Your task to perform on an android device: Is it going to rain this weekend? Image 0: 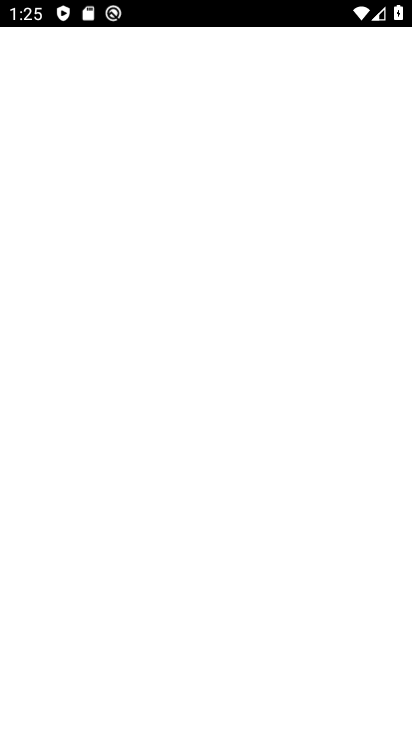
Step 0: drag from (34, 288) to (257, 228)
Your task to perform on an android device: Is it going to rain this weekend? Image 1: 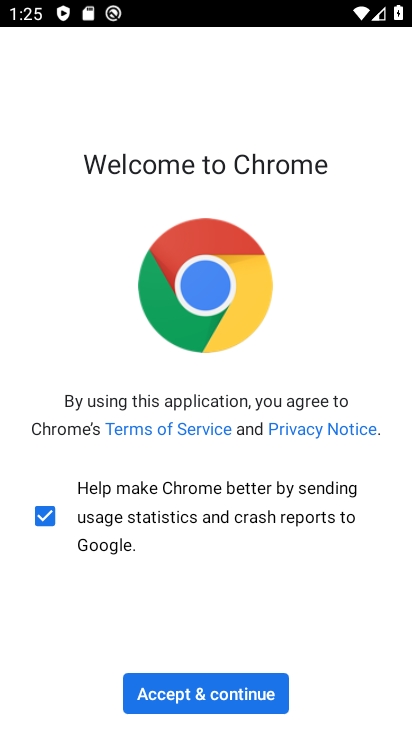
Step 1: press back button
Your task to perform on an android device: Is it going to rain this weekend? Image 2: 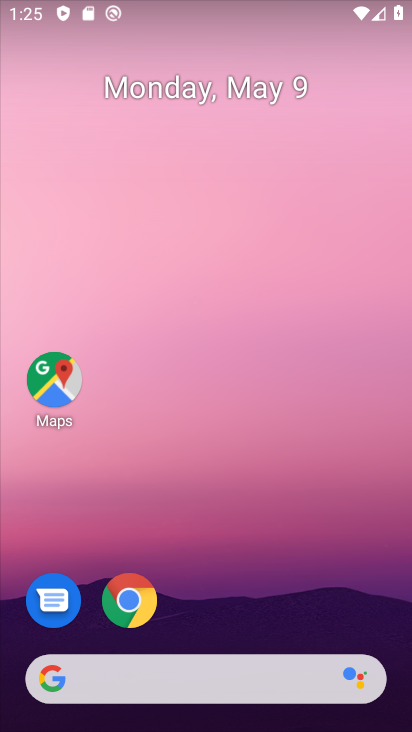
Step 2: click (36, 266)
Your task to perform on an android device: Is it going to rain this weekend? Image 3: 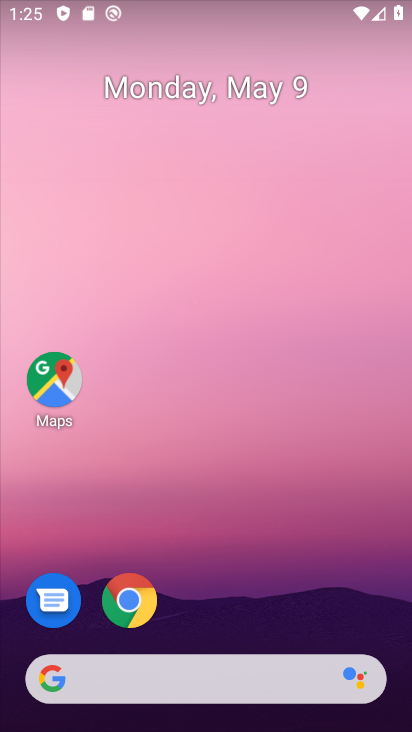
Step 3: drag from (262, 670) to (257, 160)
Your task to perform on an android device: Is it going to rain this weekend? Image 4: 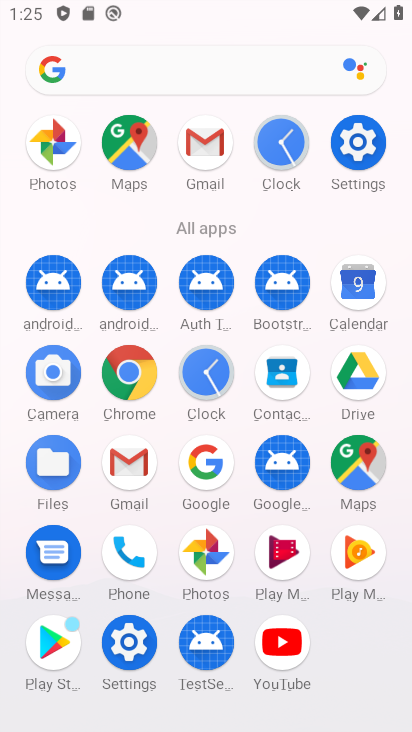
Step 4: click (197, 454)
Your task to perform on an android device: Is it going to rain this weekend? Image 5: 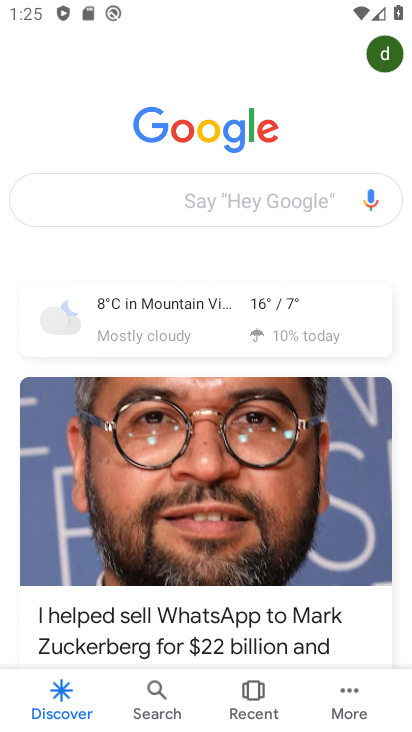
Step 5: click (68, 315)
Your task to perform on an android device: Is it going to rain this weekend? Image 6: 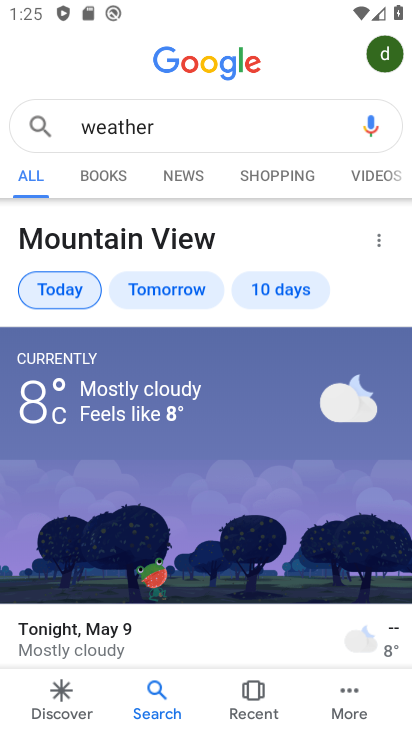
Step 6: drag from (342, 374) to (8, 350)
Your task to perform on an android device: Is it going to rain this weekend? Image 7: 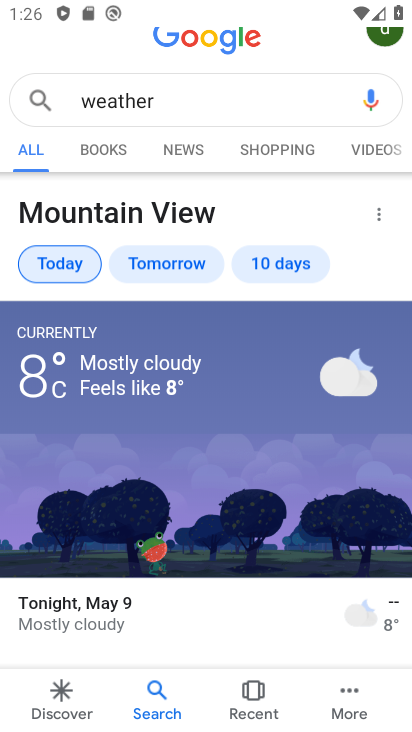
Step 7: drag from (235, 456) to (7, 372)
Your task to perform on an android device: Is it going to rain this weekend? Image 8: 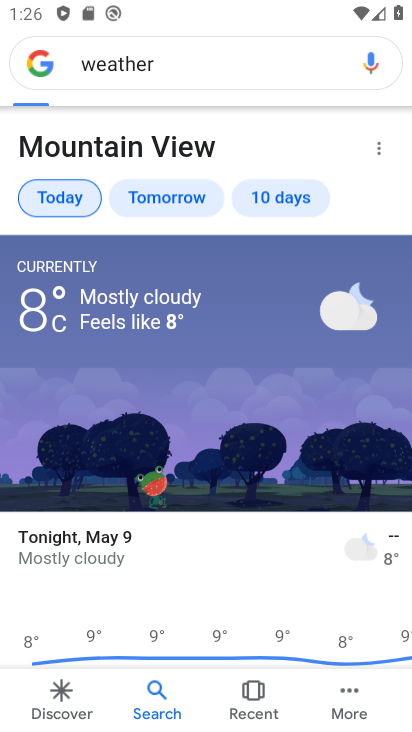
Step 8: click (282, 258)
Your task to perform on an android device: Is it going to rain this weekend? Image 9: 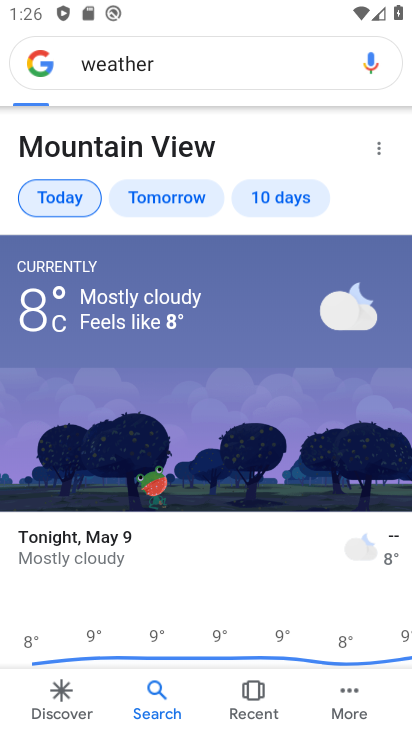
Step 9: drag from (282, 258) to (304, 365)
Your task to perform on an android device: Is it going to rain this weekend? Image 10: 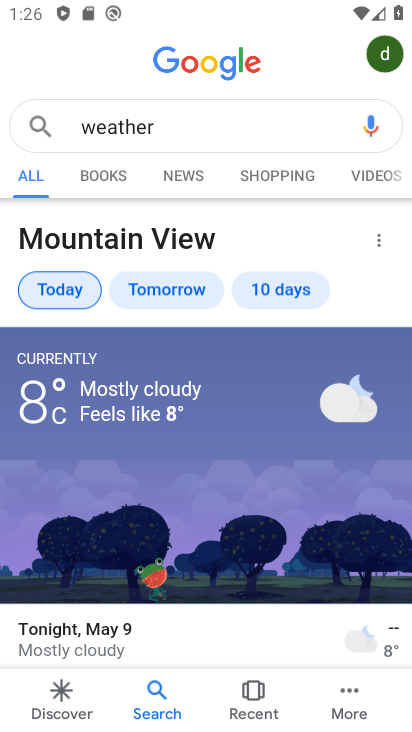
Step 10: click (317, 299)
Your task to perform on an android device: Is it going to rain this weekend? Image 11: 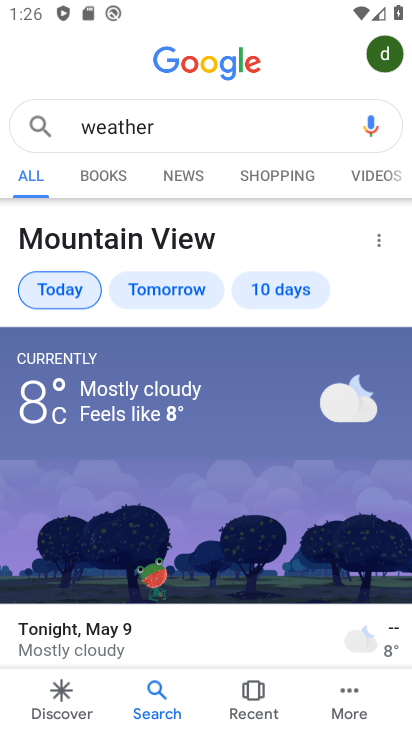
Step 11: type " this weekend"
Your task to perform on an android device: Is it going to rain this weekend? Image 12: 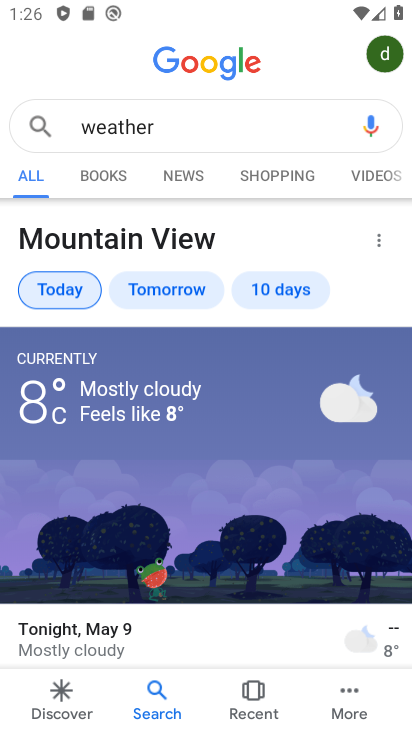
Step 12: click (202, 89)
Your task to perform on an android device: Is it going to rain this weekend? Image 13: 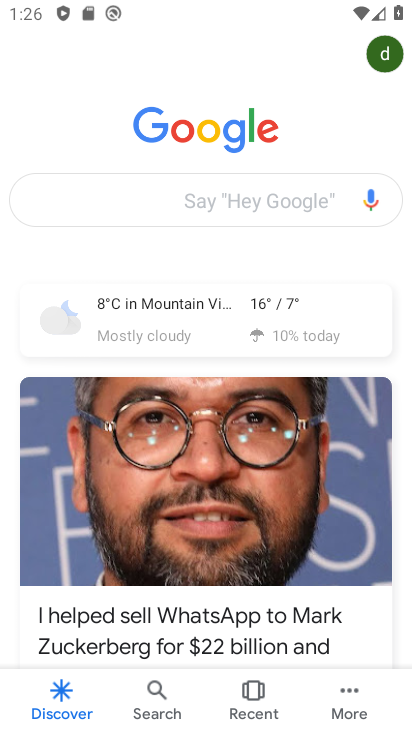
Step 13: click (217, 134)
Your task to perform on an android device: Is it going to rain this weekend? Image 14: 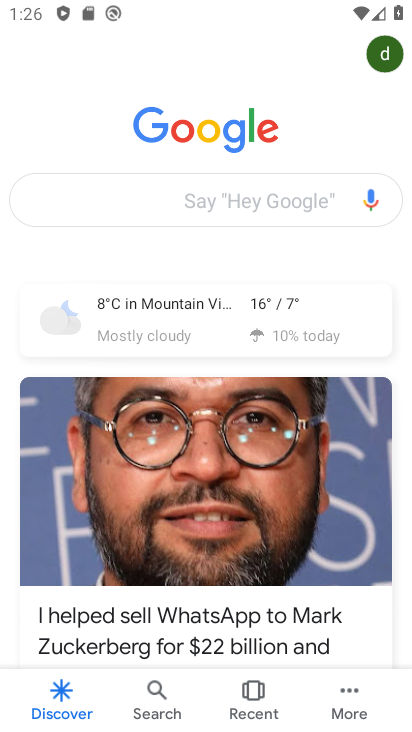
Step 14: click (138, 323)
Your task to perform on an android device: Is it going to rain this weekend? Image 15: 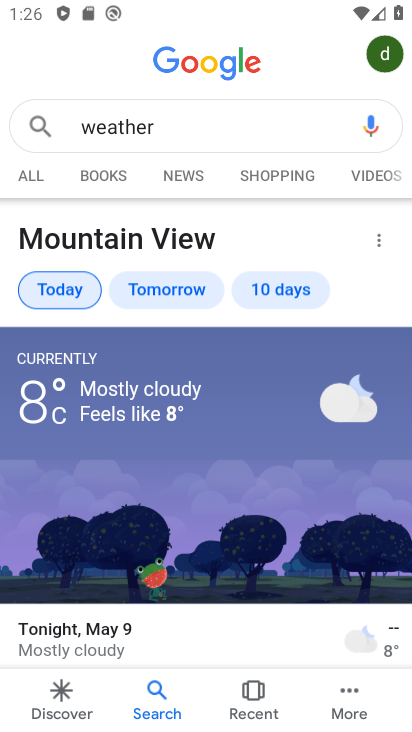
Step 15: click (203, 126)
Your task to perform on an android device: Is it going to rain this weekend? Image 16: 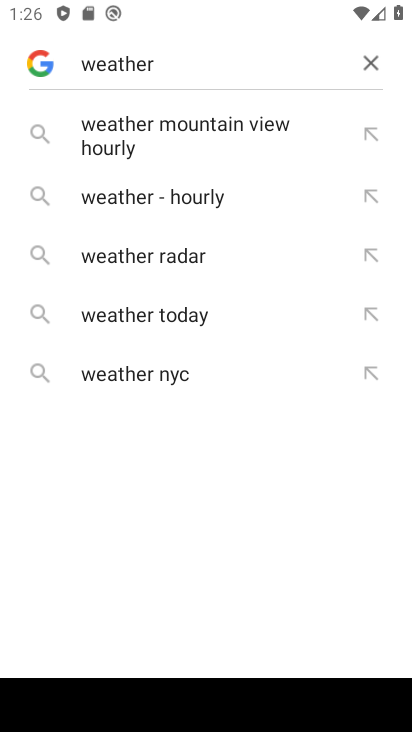
Step 16: type " this weekend"
Your task to perform on an android device: Is it going to rain this weekend? Image 17: 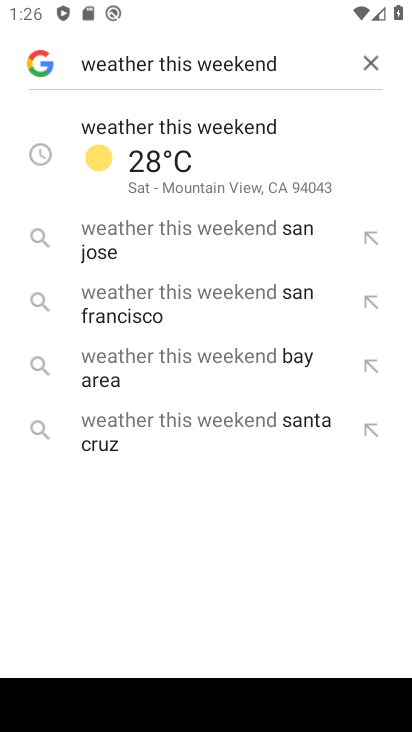
Step 17: click (178, 143)
Your task to perform on an android device: Is it going to rain this weekend? Image 18: 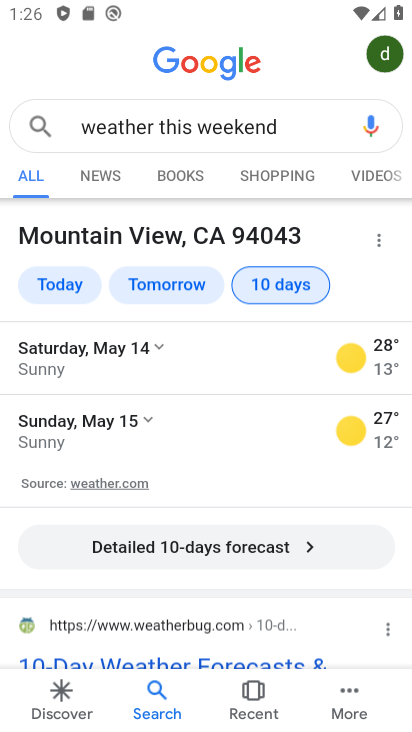
Step 18: drag from (163, 475) to (48, 1)
Your task to perform on an android device: Is it going to rain this weekend? Image 19: 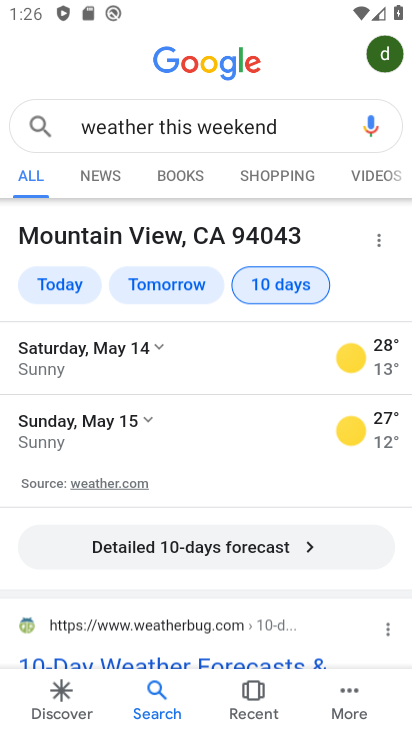
Step 19: click (279, 538)
Your task to perform on an android device: Is it going to rain this weekend? Image 20: 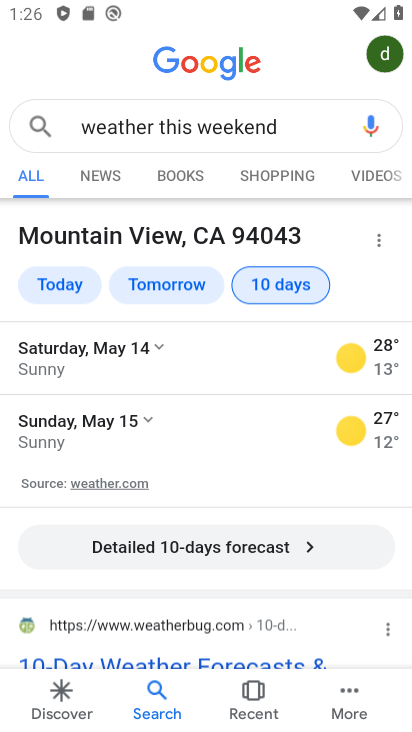
Step 20: drag from (205, 455) to (190, 132)
Your task to perform on an android device: Is it going to rain this weekend? Image 21: 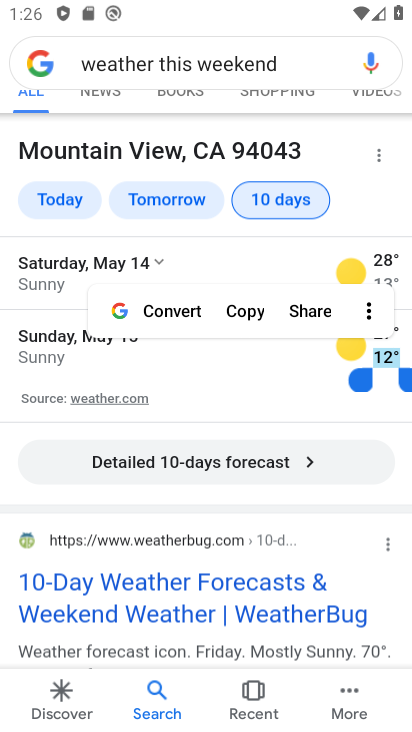
Step 21: click (262, 475)
Your task to perform on an android device: Is it going to rain this weekend? Image 22: 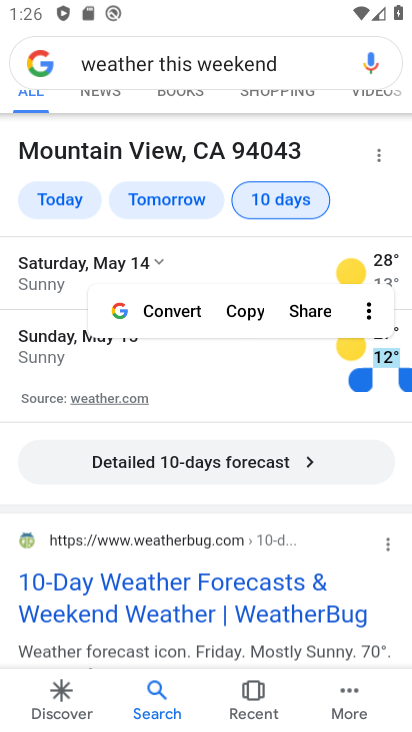
Step 22: click (287, 464)
Your task to perform on an android device: Is it going to rain this weekend? Image 23: 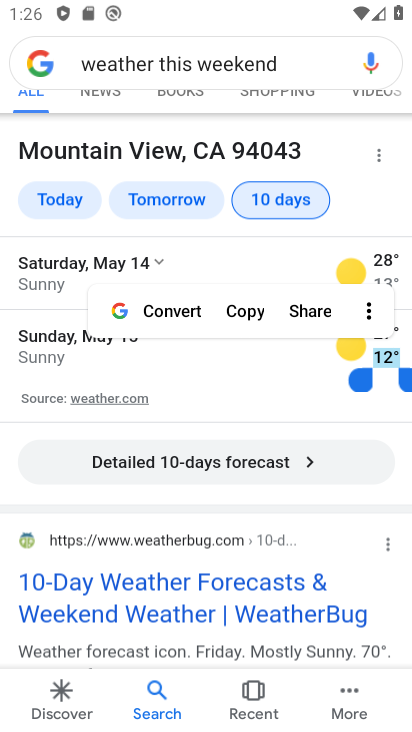
Step 23: click (287, 464)
Your task to perform on an android device: Is it going to rain this weekend? Image 24: 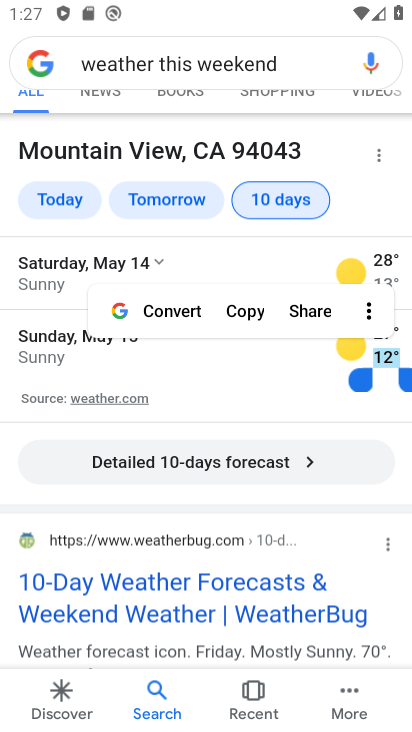
Step 24: click (315, 449)
Your task to perform on an android device: Is it going to rain this weekend? Image 25: 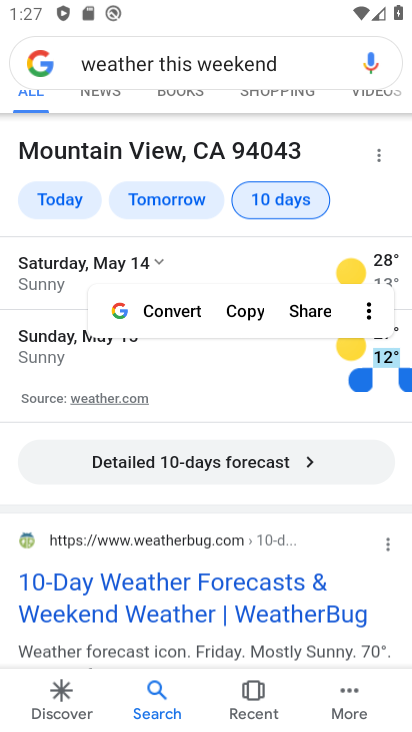
Step 25: click (302, 509)
Your task to perform on an android device: Is it going to rain this weekend? Image 26: 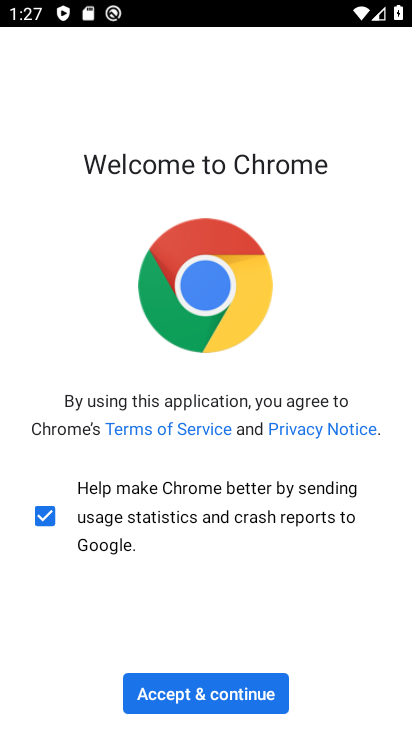
Step 26: press back button
Your task to perform on an android device: Is it going to rain this weekend? Image 27: 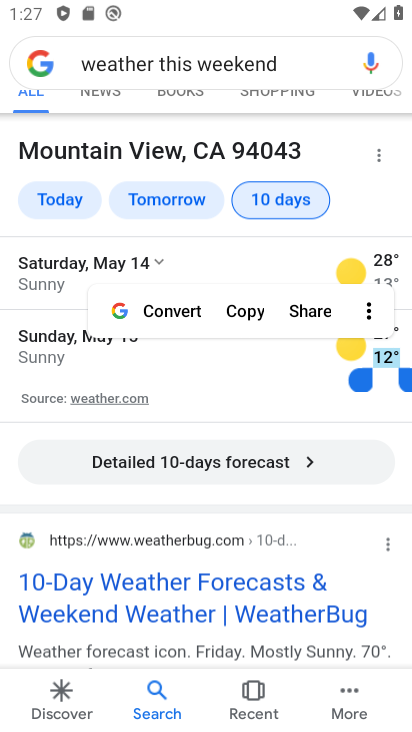
Step 27: click (211, 475)
Your task to perform on an android device: Is it going to rain this weekend? Image 28: 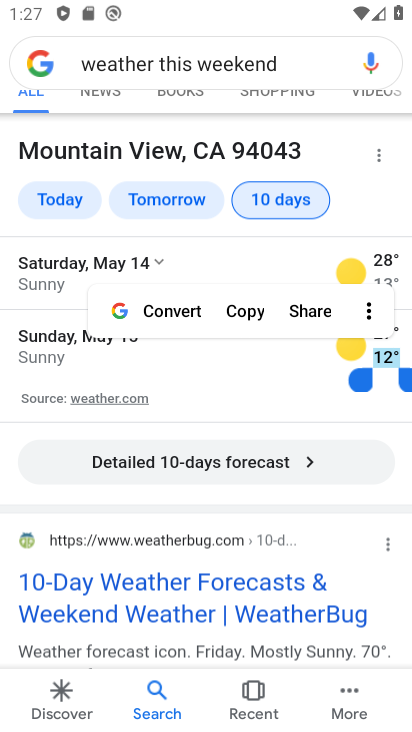
Step 28: task complete